Your task to perform on an android device: Open the stopwatch Image 0: 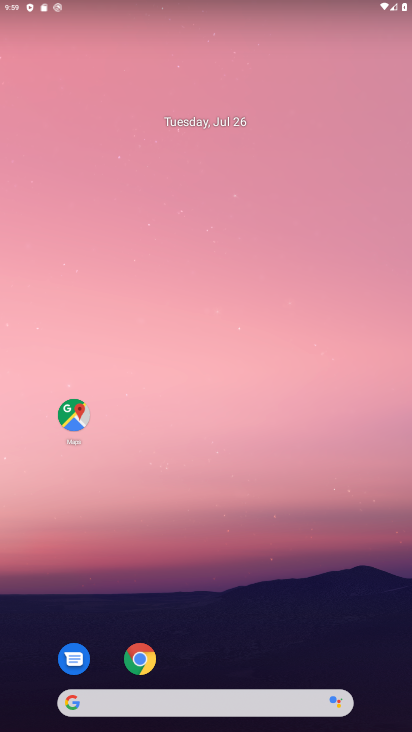
Step 0: drag from (393, 679) to (283, 1)
Your task to perform on an android device: Open the stopwatch Image 1: 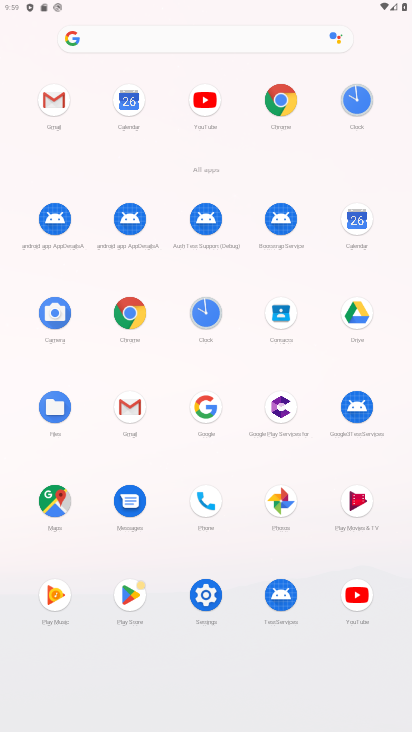
Step 1: click (204, 310)
Your task to perform on an android device: Open the stopwatch Image 2: 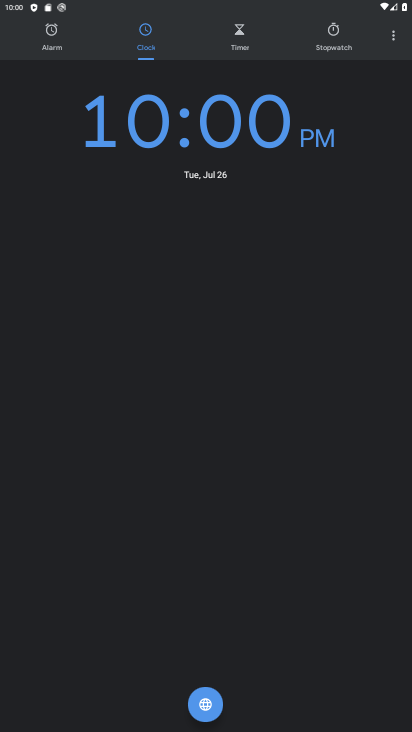
Step 2: click (333, 36)
Your task to perform on an android device: Open the stopwatch Image 3: 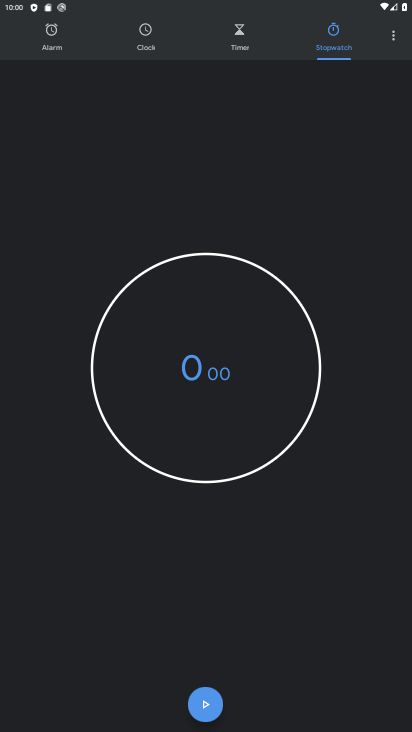
Step 3: task complete